Your task to perform on an android device: Do I have any events today? Image 0: 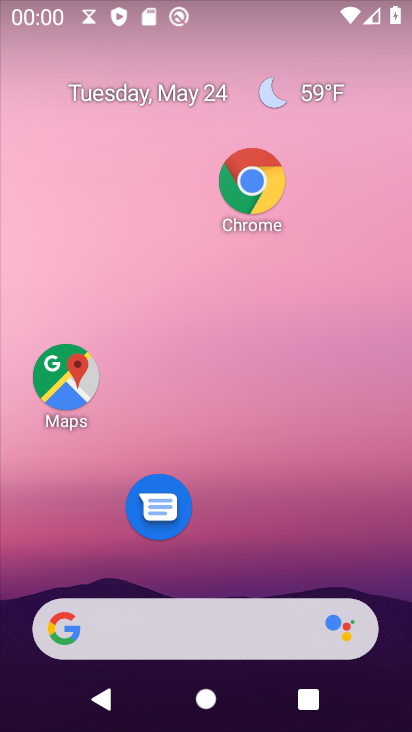
Step 0: drag from (293, 590) to (326, 301)
Your task to perform on an android device: Do I have any events today? Image 1: 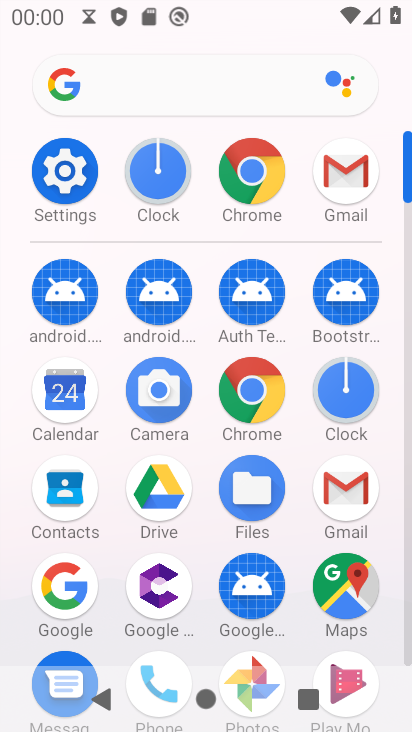
Step 1: click (68, 388)
Your task to perform on an android device: Do I have any events today? Image 2: 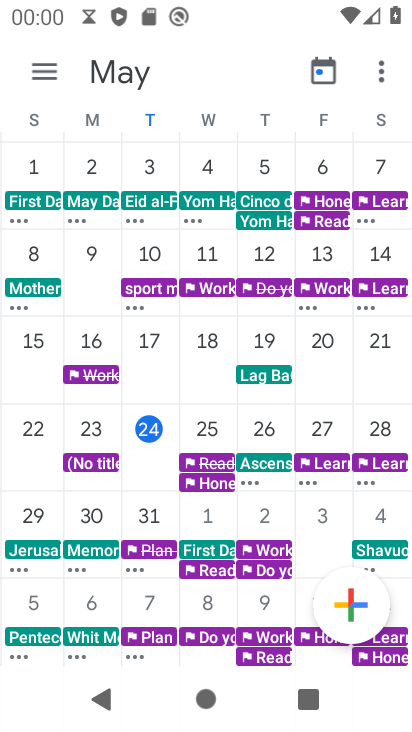
Step 2: click (153, 426)
Your task to perform on an android device: Do I have any events today? Image 3: 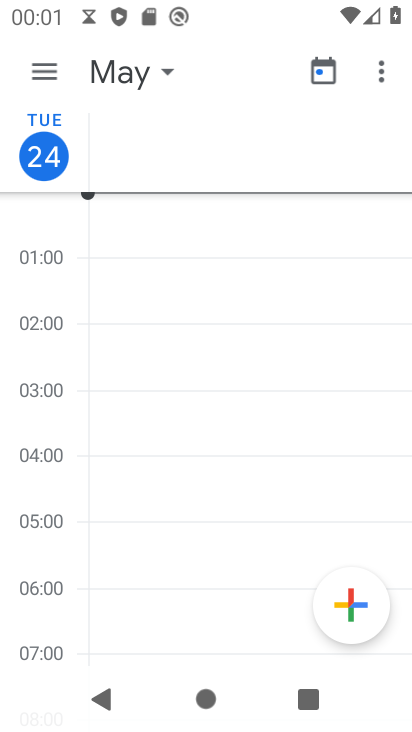
Step 3: task complete